Your task to perform on an android device: Open Chrome and go to settings Image 0: 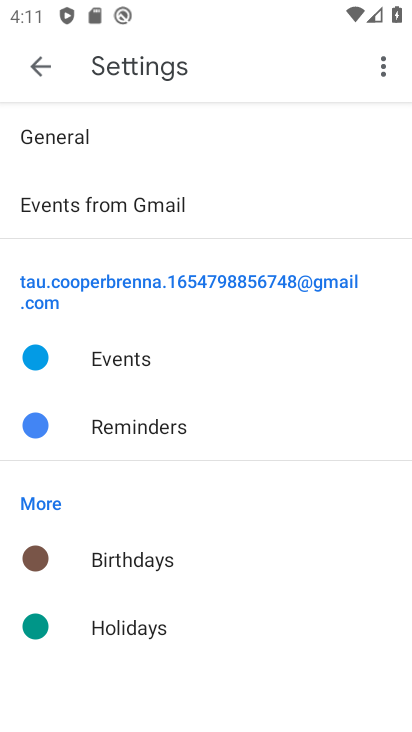
Step 0: press home button
Your task to perform on an android device: Open Chrome and go to settings Image 1: 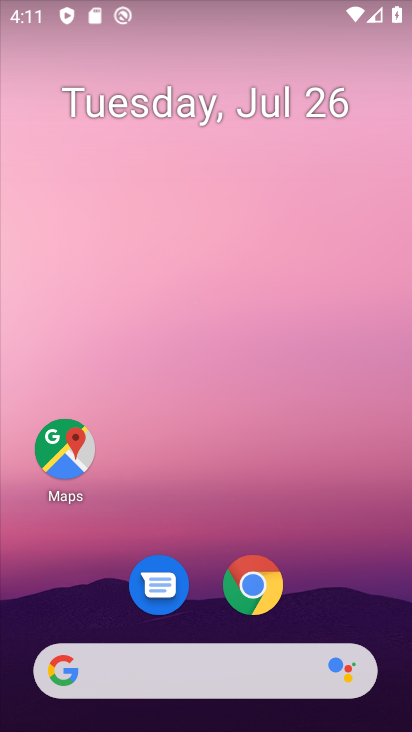
Step 1: click (250, 584)
Your task to perform on an android device: Open Chrome and go to settings Image 2: 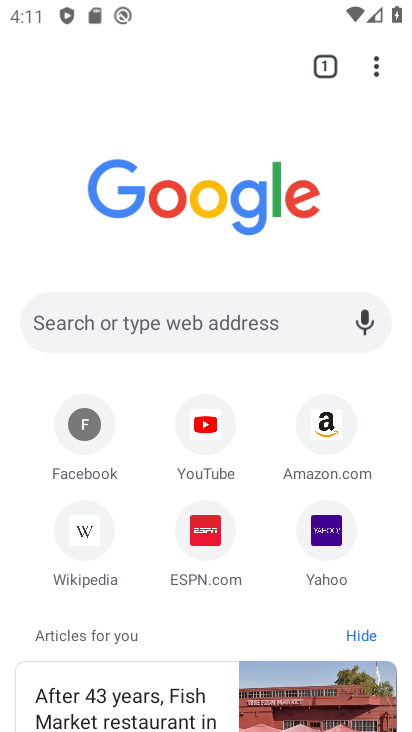
Step 2: click (377, 71)
Your task to perform on an android device: Open Chrome and go to settings Image 3: 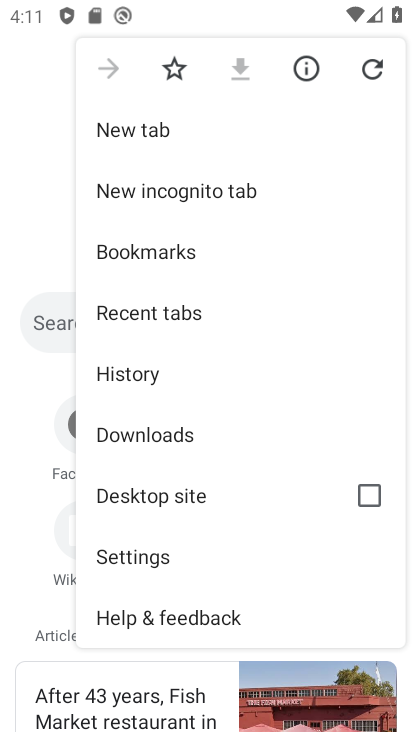
Step 3: click (145, 553)
Your task to perform on an android device: Open Chrome and go to settings Image 4: 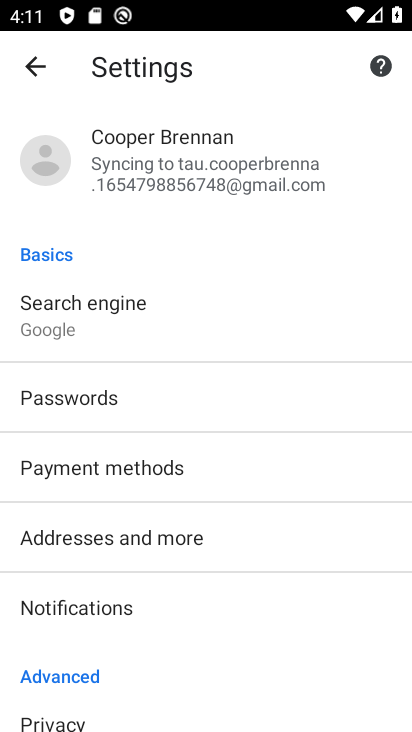
Step 4: task complete